Your task to perform on an android device: Open Chrome and go to settings Image 0: 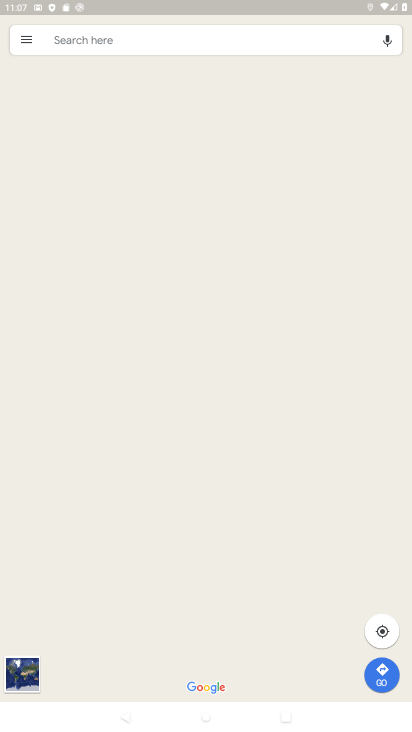
Step 0: drag from (224, 550) to (278, 264)
Your task to perform on an android device: Open Chrome and go to settings Image 1: 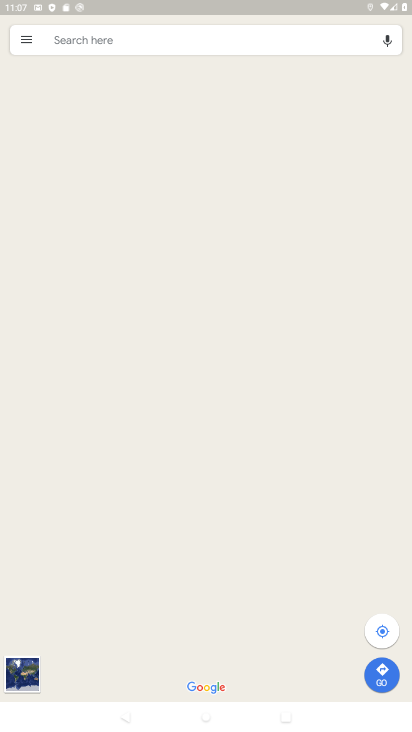
Step 1: press home button
Your task to perform on an android device: Open Chrome and go to settings Image 2: 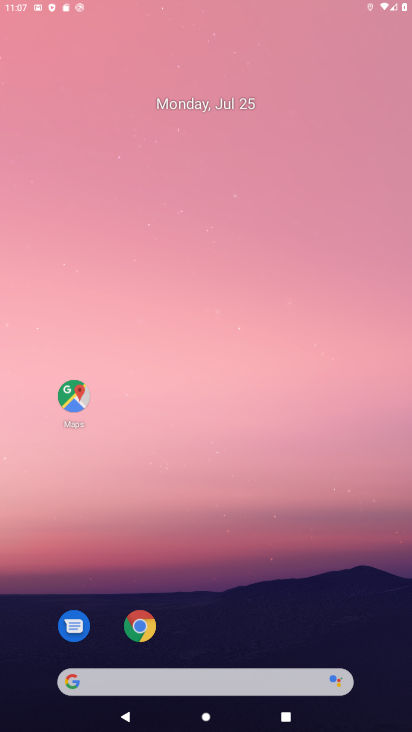
Step 2: drag from (191, 618) to (271, 237)
Your task to perform on an android device: Open Chrome and go to settings Image 3: 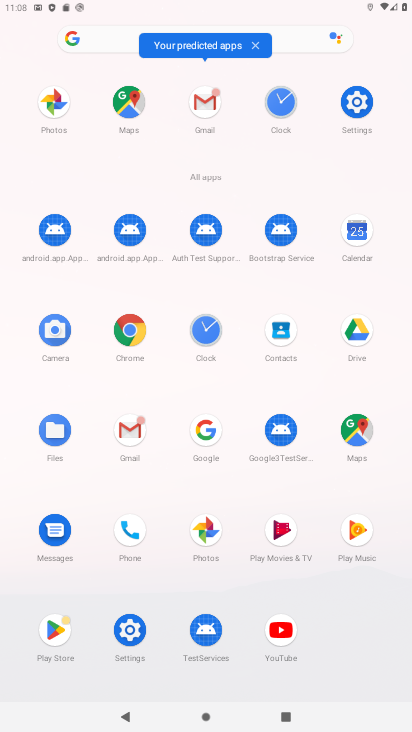
Step 3: click (128, 638)
Your task to perform on an android device: Open Chrome and go to settings Image 4: 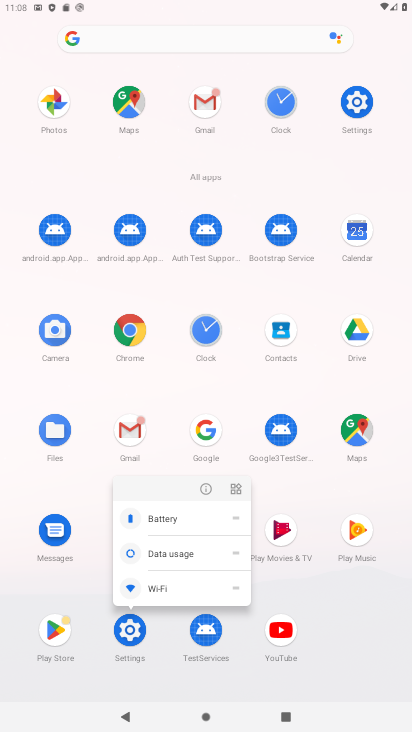
Step 4: click (127, 326)
Your task to perform on an android device: Open Chrome and go to settings Image 5: 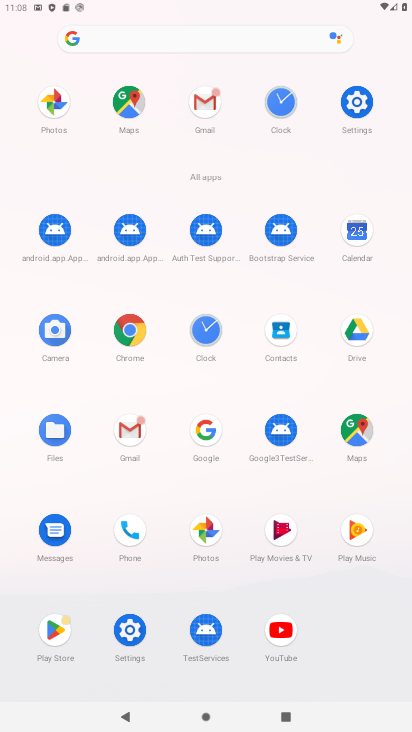
Step 5: click (127, 326)
Your task to perform on an android device: Open Chrome and go to settings Image 6: 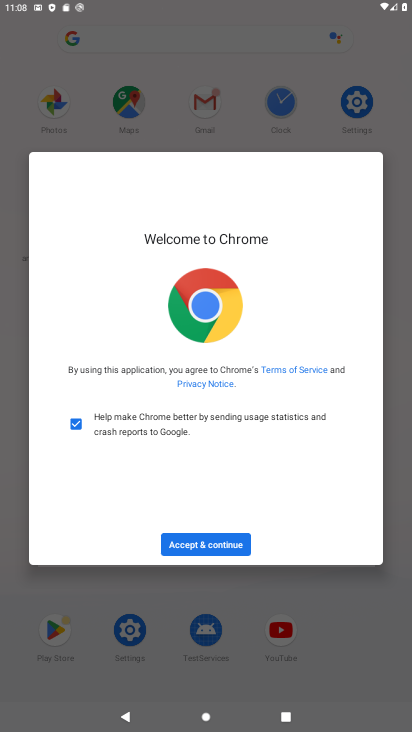
Step 6: click (213, 537)
Your task to perform on an android device: Open Chrome and go to settings Image 7: 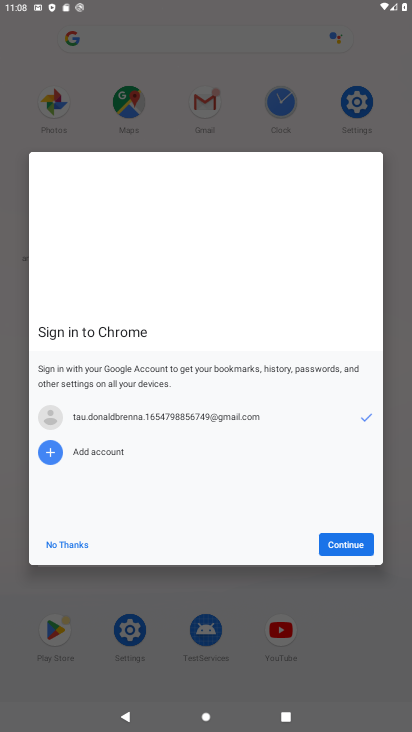
Step 7: click (340, 543)
Your task to perform on an android device: Open Chrome and go to settings Image 8: 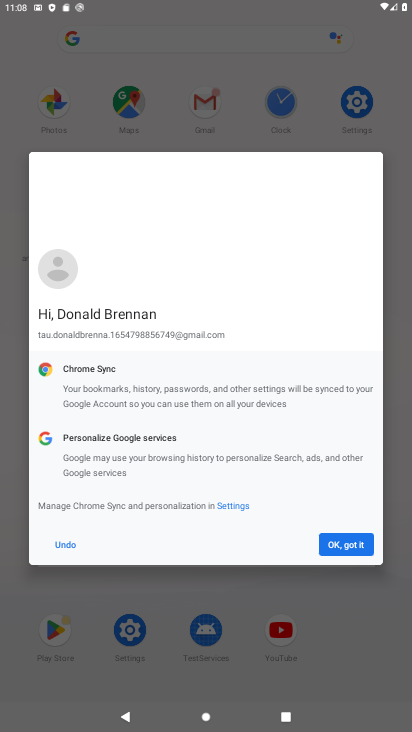
Step 8: click (347, 552)
Your task to perform on an android device: Open Chrome and go to settings Image 9: 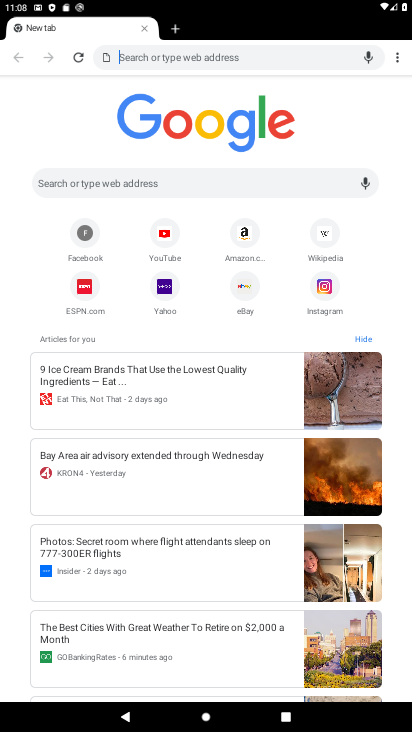
Step 9: task complete